Your task to perform on an android device: turn off wifi Image 0: 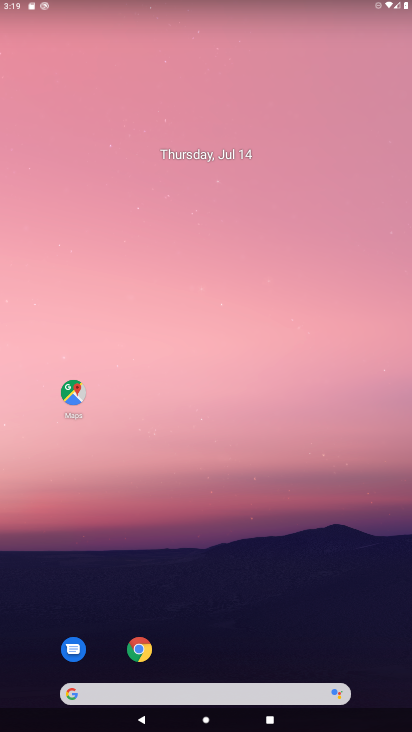
Step 0: drag from (200, 615) to (350, 43)
Your task to perform on an android device: turn off wifi Image 1: 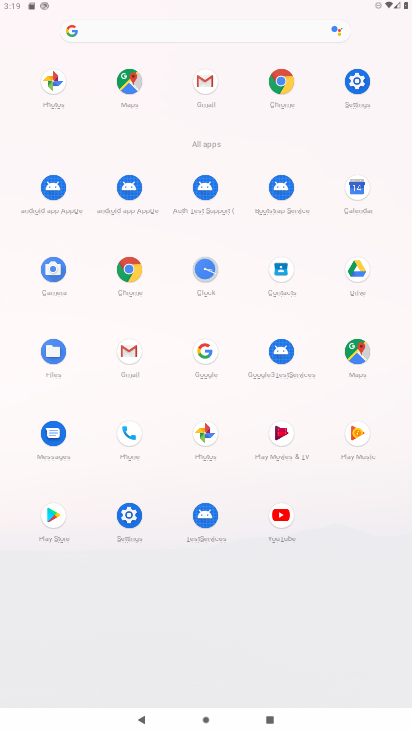
Step 1: click (355, 82)
Your task to perform on an android device: turn off wifi Image 2: 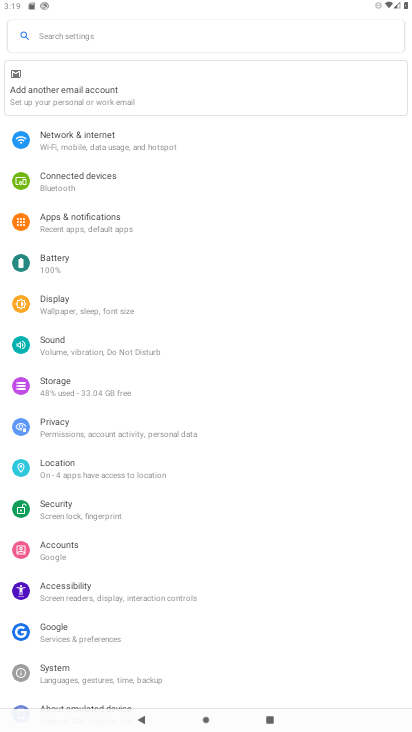
Step 2: click (89, 126)
Your task to perform on an android device: turn off wifi Image 3: 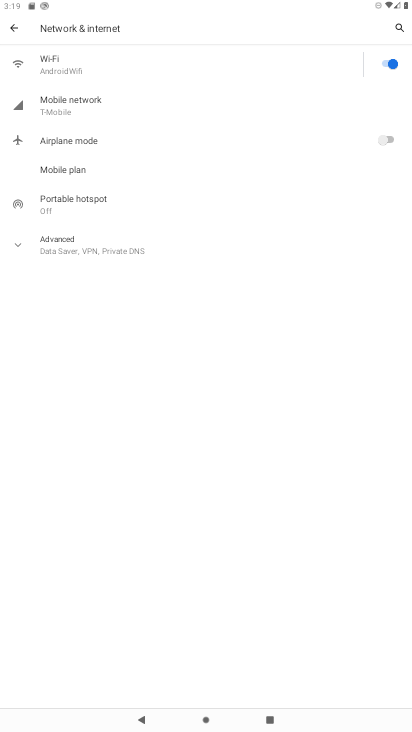
Step 3: click (85, 68)
Your task to perform on an android device: turn off wifi Image 4: 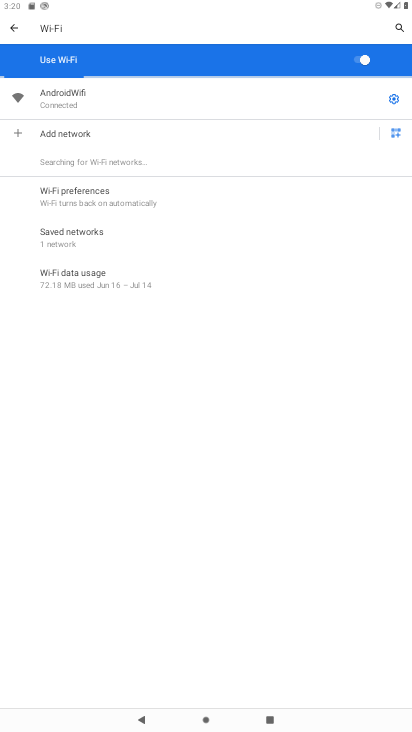
Step 4: click (356, 61)
Your task to perform on an android device: turn off wifi Image 5: 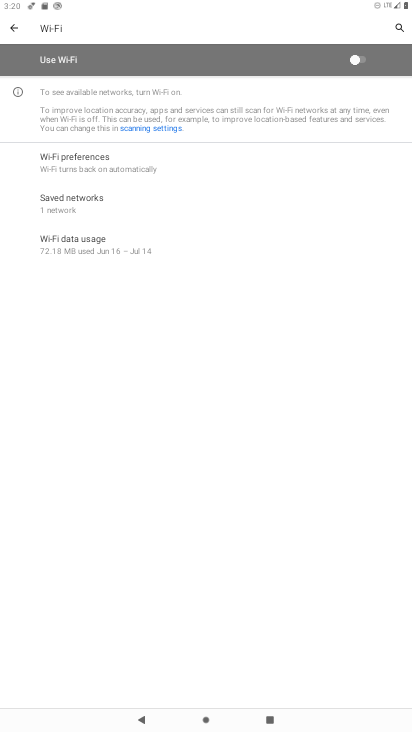
Step 5: task complete